Your task to perform on an android device: Open the phone app and click the voicemail tab. Image 0: 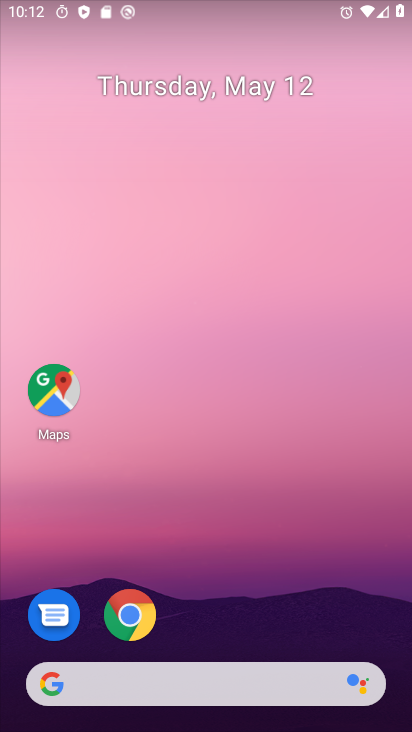
Step 0: drag from (291, 71) to (320, 113)
Your task to perform on an android device: Open the phone app and click the voicemail tab. Image 1: 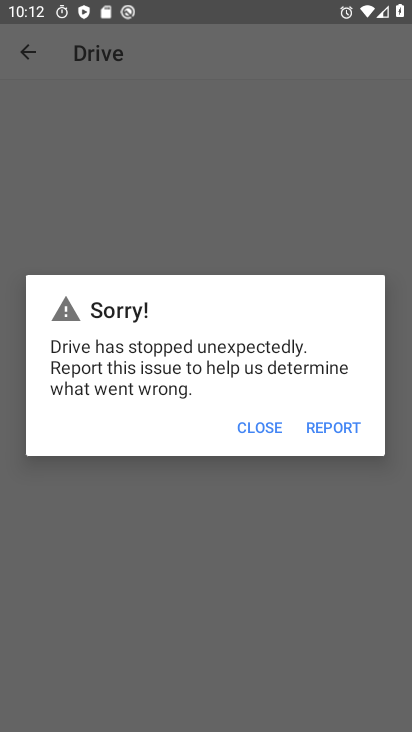
Step 1: press home button
Your task to perform on an android device: Open the phone app and click the voicemail tab. Image 2: 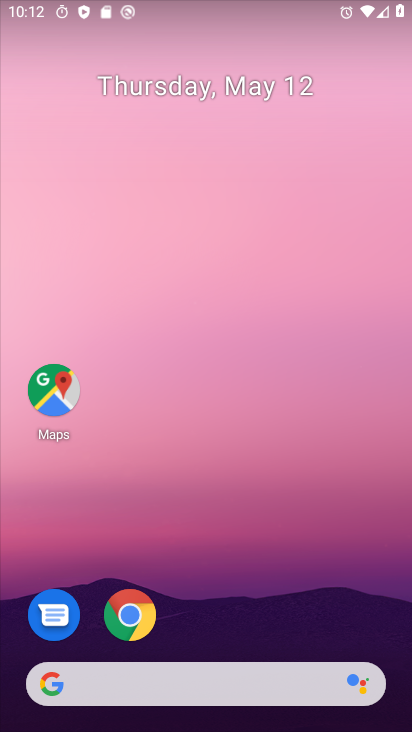
Step 2: drag from (297, 636) to (218, 175)
Your task to perform on an android device: Open the phone app and click the voicemail tab. Image 3: 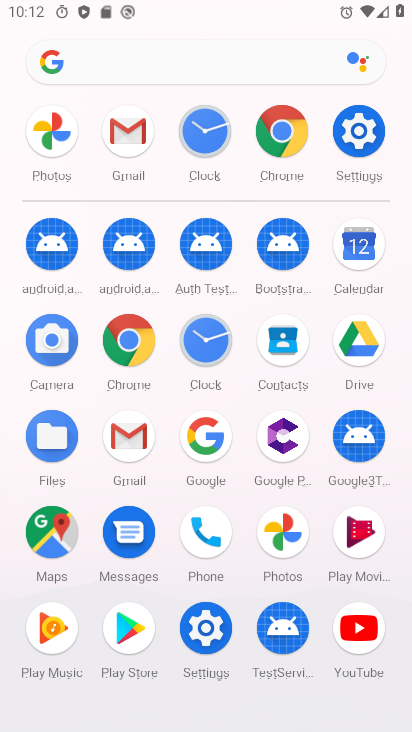
Step 3: click (199, 519)
Your task to perform on an android device: Open the phone app and click the voicemail tab. Image 4: 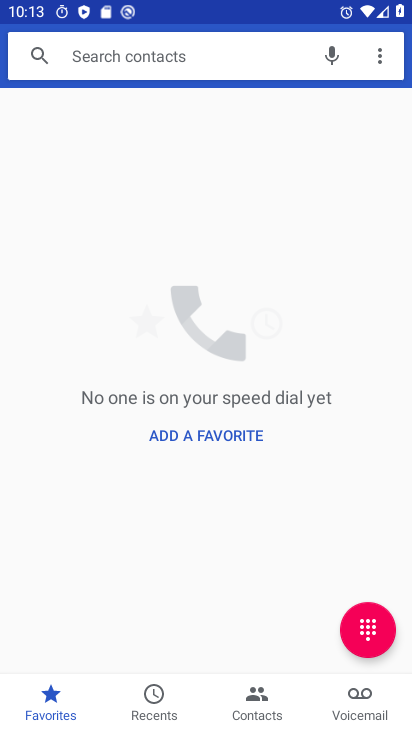
Step 4: click (364, 694)
Your task to perform on an android device: Open the phone app and click the voicemail tab. Image 5: 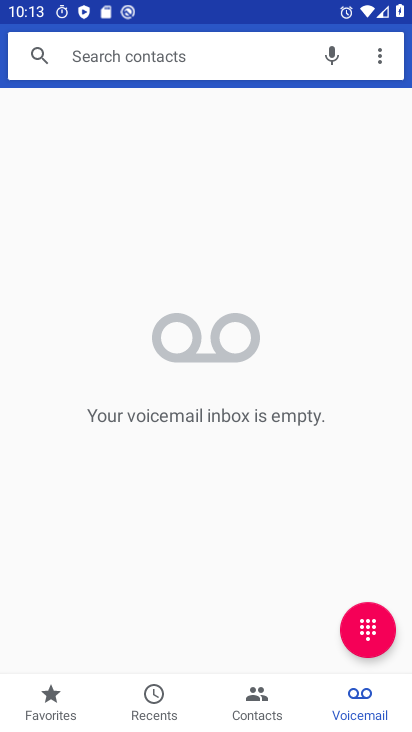
Step 5: task complete